Your task to perform on an android device: Open battery settings Image 0: 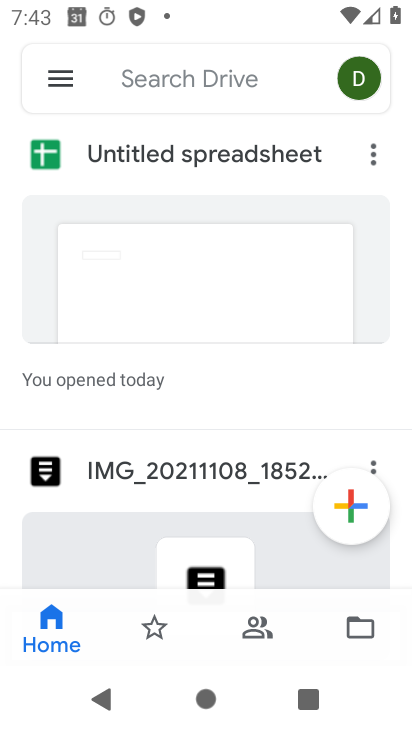
Step 0: press home button
Your task to perform on an android device: Open battery settings Image 1: 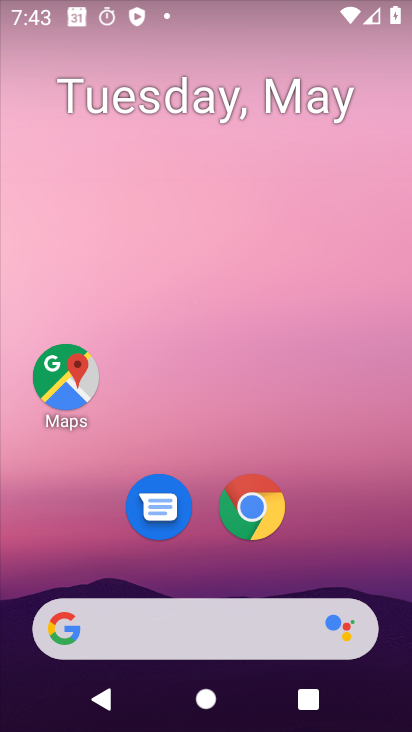
Step 1: drag from (203, 574) to (231, 30)
Your task to perform on an android device: Open battery settings Image 2: 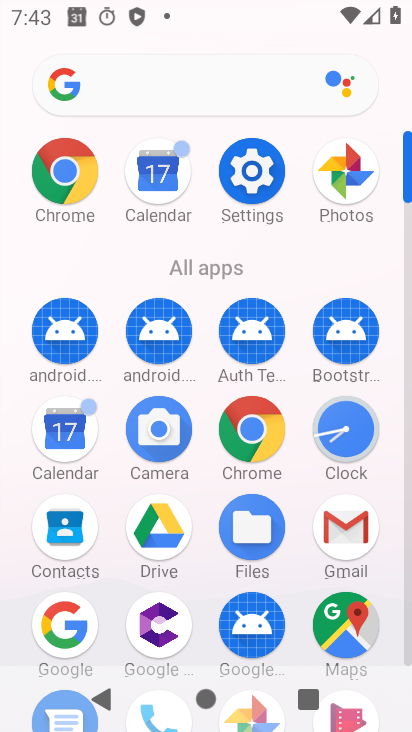
Step 2: click (244, 185)
Your task to perform on an android device: Open battery settings Image 3: 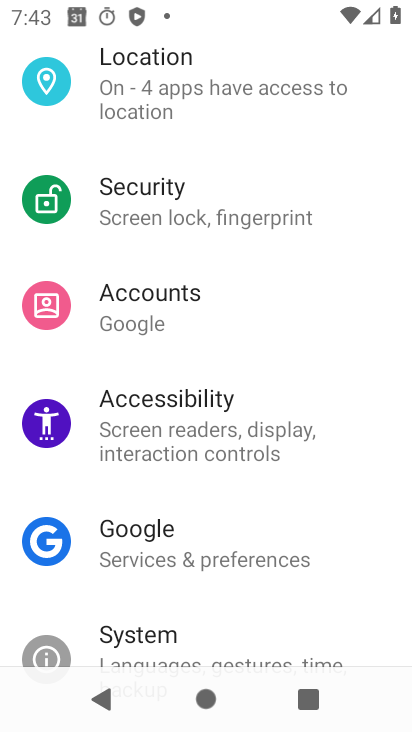
Step 3: drag from (248, 191) to (302, 523)
Your task to perform on an android device: Open battery settings Image 4: 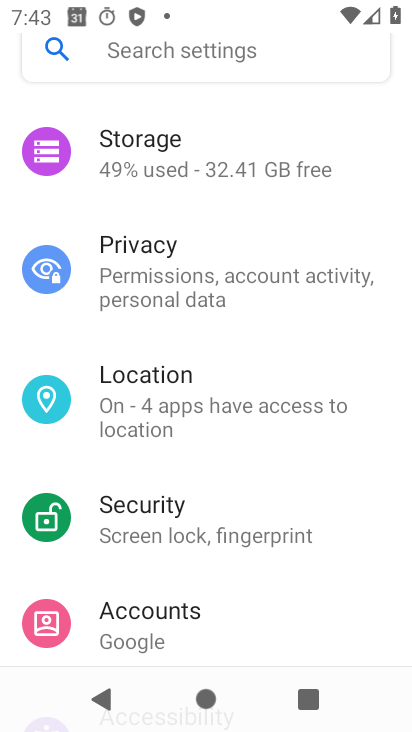
Step 4: drag from (284, 301) to (256, 566)
Your task to perform on an android device: Open battery settings Image 5: 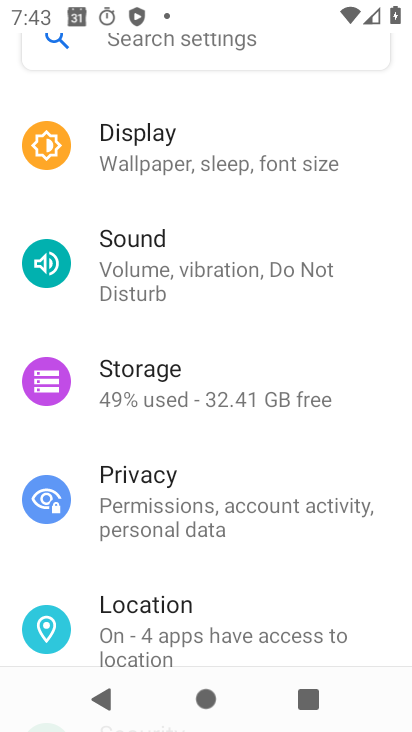
Step 5: drag from (242, 256) to (194, 558)
Your task to perform on an android device: Open battery settings Image 6: 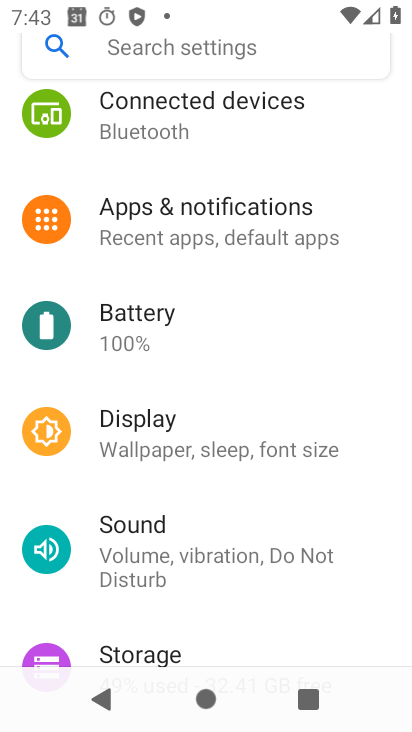
Step 6: click (123, 324)
Your task to perform on an android device: Open battery settings Image 7: 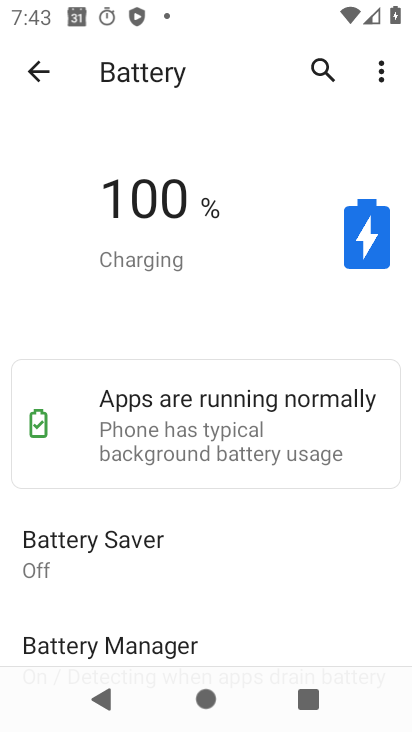
Step 7: task complete